Your task to perform on an android device: uninstall "Calculator" Image 0: 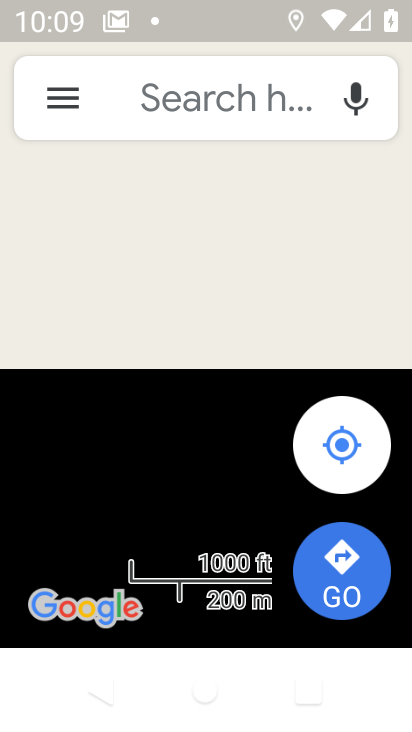
Step 0: press home button
Your task to perform on an android device: uninstall "Calculator" Image 1: 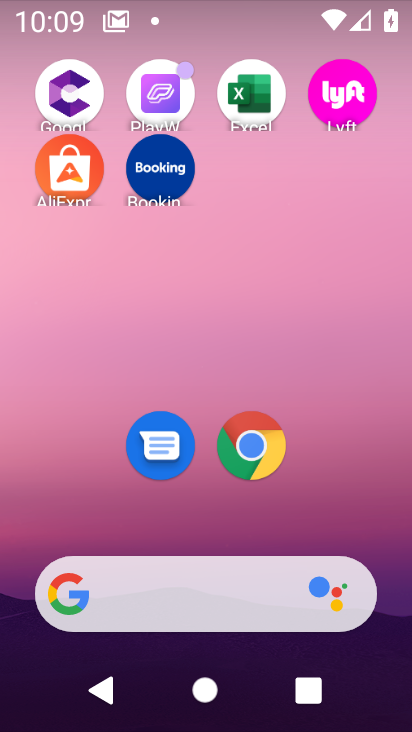
Step 1: drag from (266, 87) to (390, 460)
Your task to perform on an android device: uninstall "Calculator" Image 2: 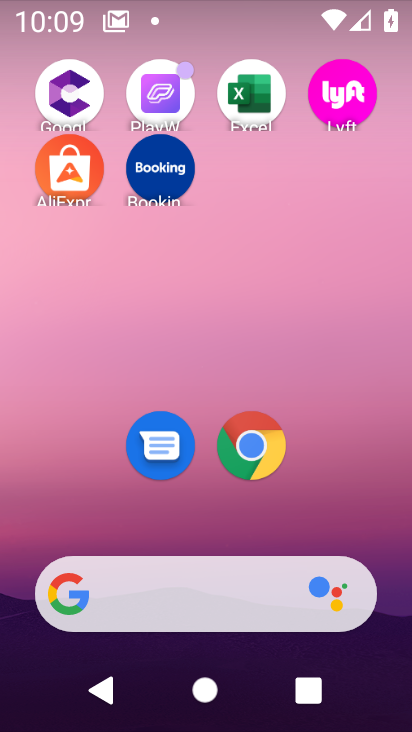
Step 2: drag from (191, 552) to (252, 59)
Your task to perform on an android device: uninstall "Calculator" Image 3: 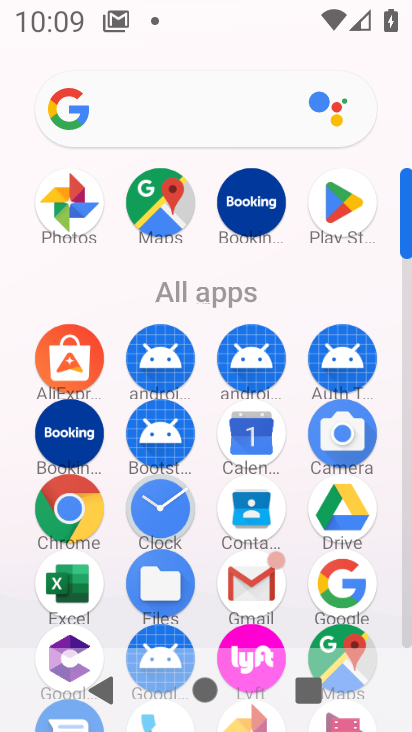
Step 3: drag from (246, 510) to (308, 143)
Your task to perform on an android device: uninstall "Calculator" Image 4: 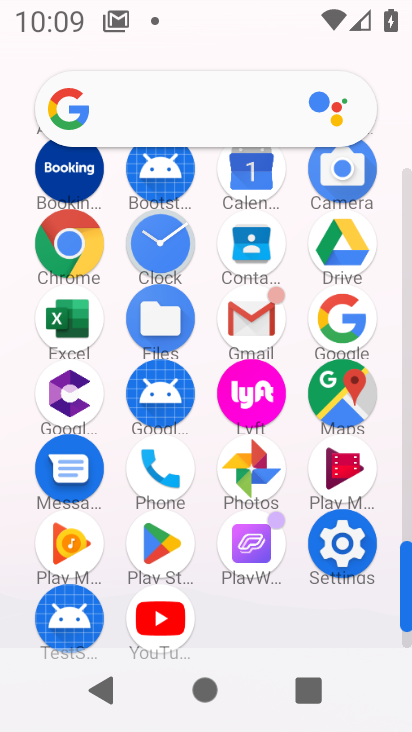
Step 4: click (172, 558)
Your task to perform on an android device: uninstall "Calculator" Image 5: 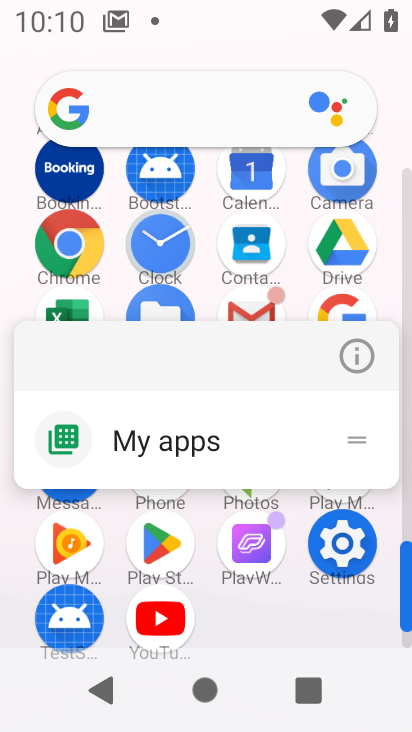
Step 5: click (185, 551)
Your task to perform on an android device: uninstall "Calculator" Image 6: 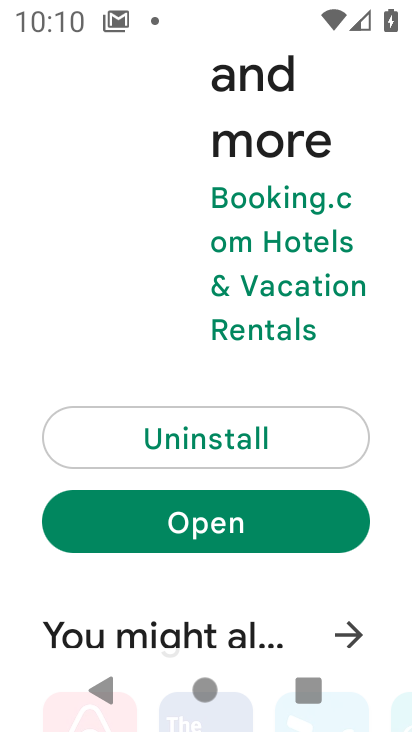
Step 6: drag from (313, 400) to (227, 715)
Your task to perform on an android device: uninstall "Calculator" Image 7: 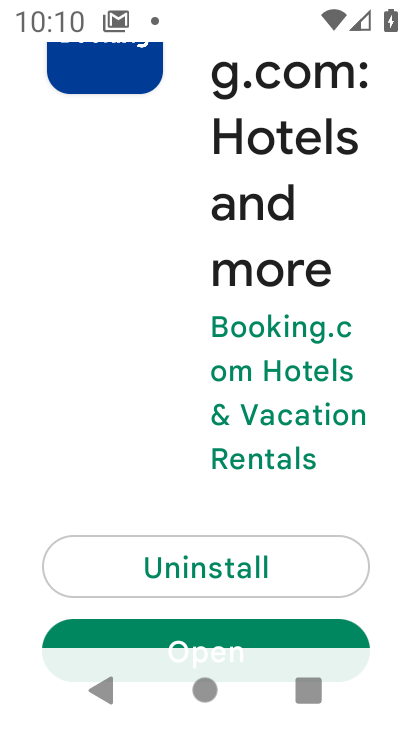
Step 7: drag from (117, 281) to (124, 663)
Your task to perform on an android device: uninstall "Calculator" Image 8: 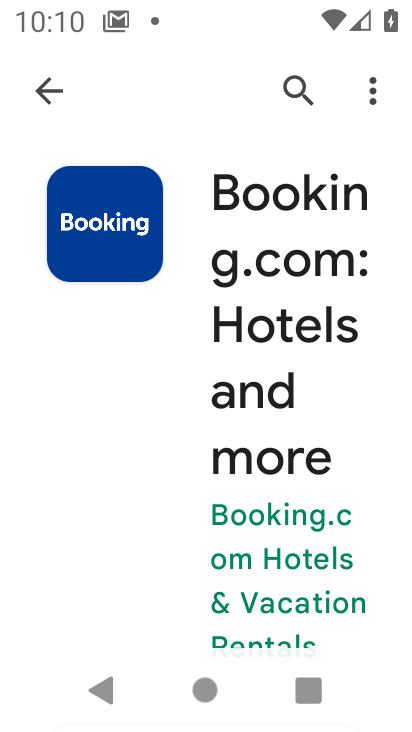
Step 8: click (63, 88)
Your task to perform on an android device: uninstall "Calculator" Image 9: 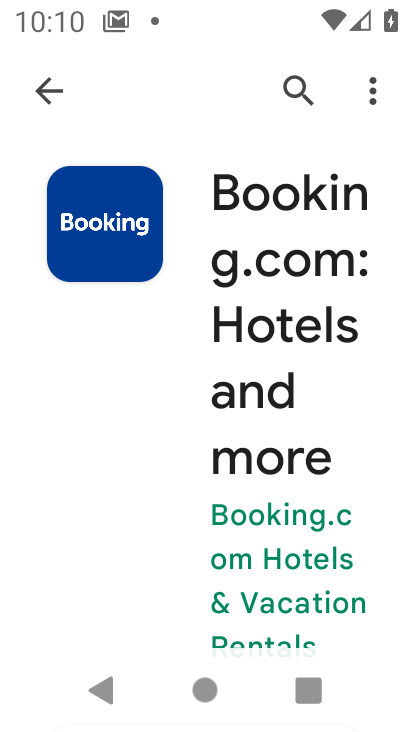
Step 9: press back button
Your task to perform on an android device: uninstall "Calculator" Image 10: 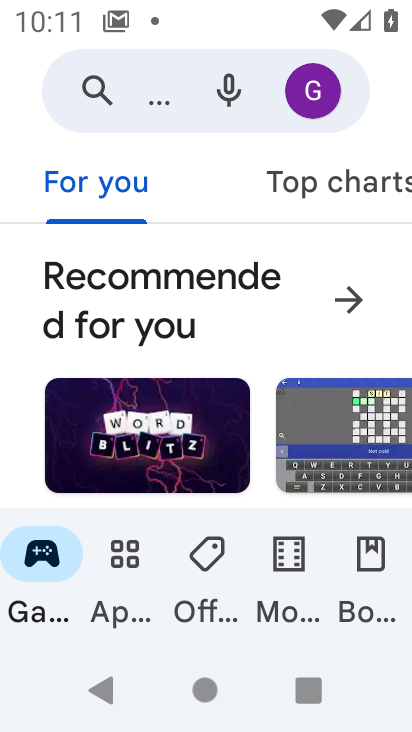
Step 10: click (95, 101)
Your task to perform on an android device: uninstall "Calculator" Image 11: 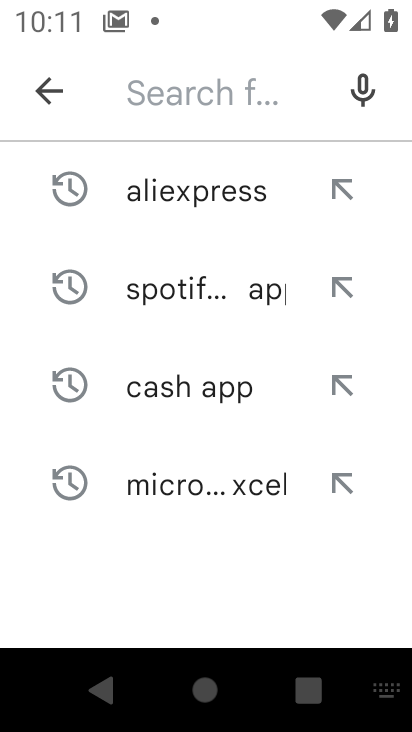
Step 11: type "Calculato"
Your task to perform on an android device: uninstall "Calculator" Image 12: 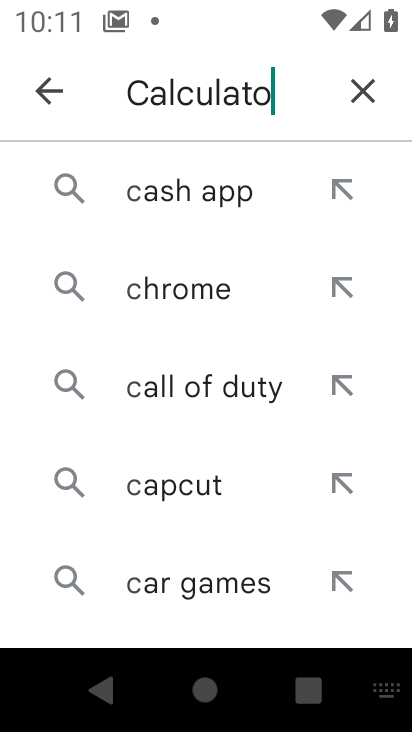
Step 12: type ""
Your task to perform on an android device: uninstall "Calculator" Image 13: 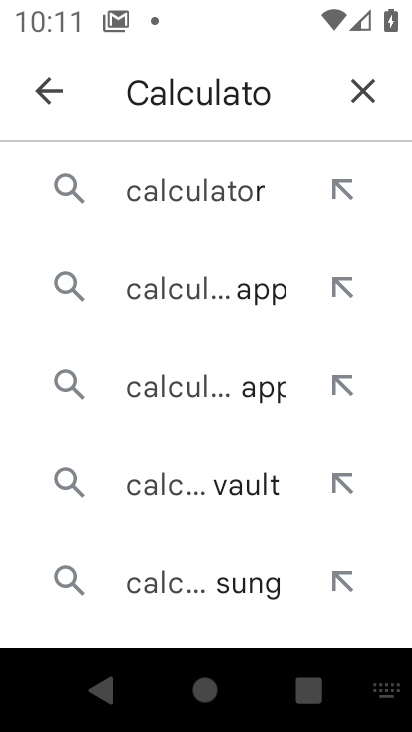
Step 13: click (264, 193)
Your task to perform on an android device: uninstall "Calculator" Image 14: 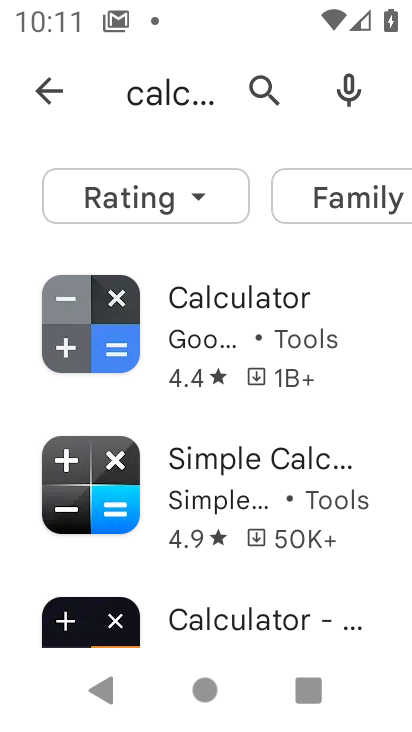
Step 14: click (256, 348)
Your task to perform on an android device: uninstall "Calculator" Image 15: 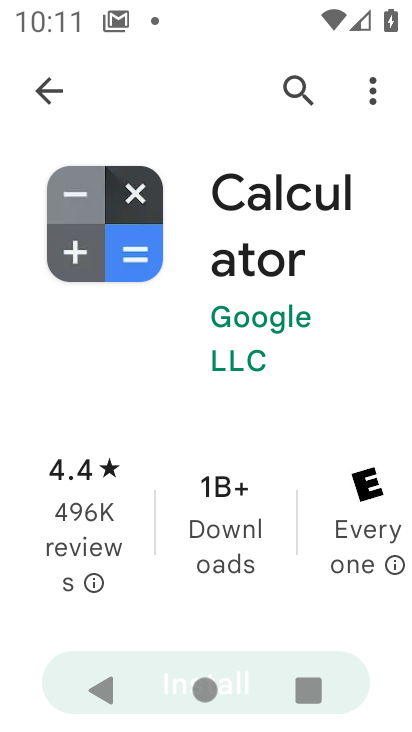
Step 15: task complete